Your task to perform on an android device: Open my contact list Image 0: 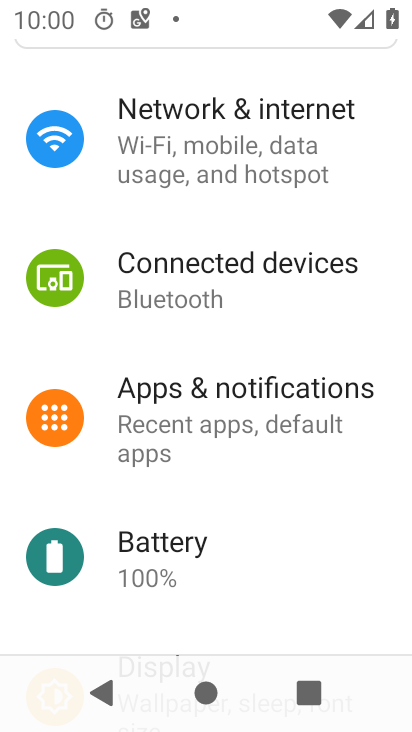
Step 0: press home button
Your task to perform on an android device: Open my contact list Image 1: 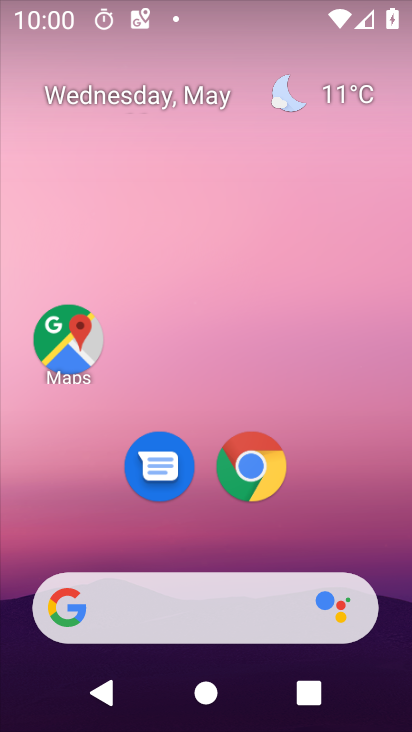
Step 1: drag from (309, 555) to (255, 198)
Your task to perform on an android device: Open my contact list Image 2: 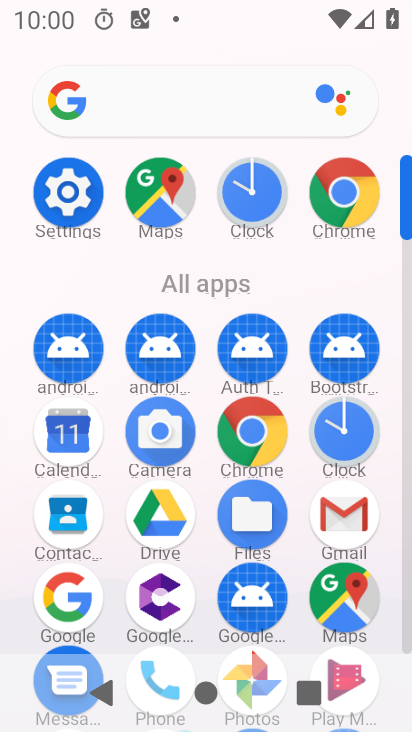
Step 2: click (63, 533)
Your task to perform on an android device: Open my contact list Image 3: 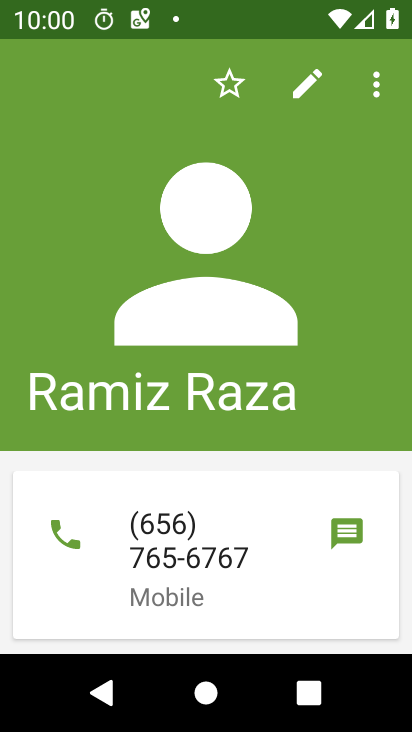
Step 3: task complete